Your task to perform on an android device: Empty the shopping cart on amazon. Search for "rayovac triple a" on amazon, select the first entry, add it to the cart, then select checkout. Image 0: 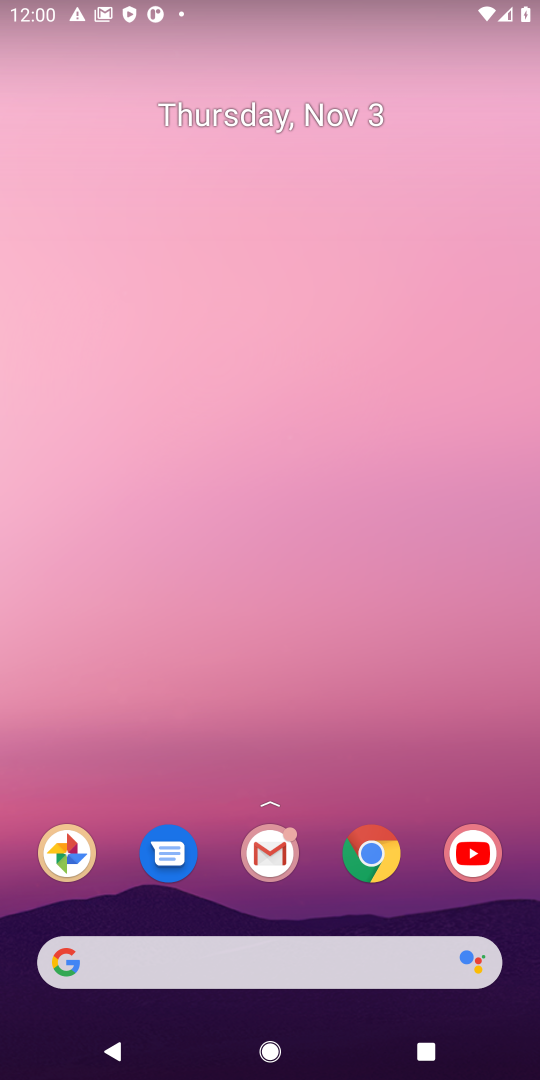
Step 0: click (376, 866)
Your task to perform on an android device: Empty the shopping cart on amazon. Search for "rayovac triple a" on amazon, select the first entry, add it to the cart, then select checkout. Image 1: 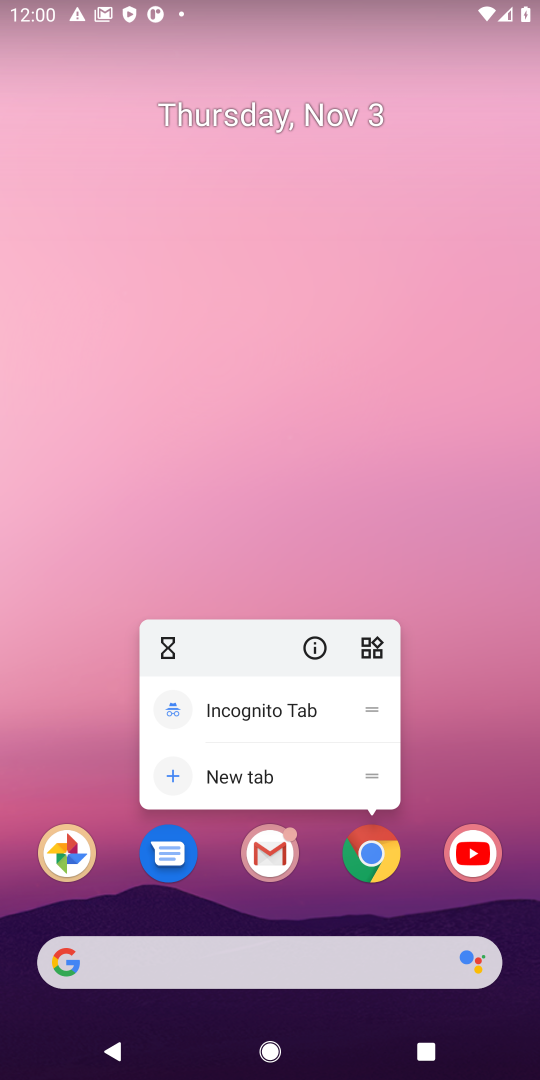
Step 1: click (364, 853)
Your task to perform on an android device: Empty the shopping cart on amazon. Search for "rayovac triple a" on amazon, select the first entry, add it to the cart, then select checkout. Image 2: 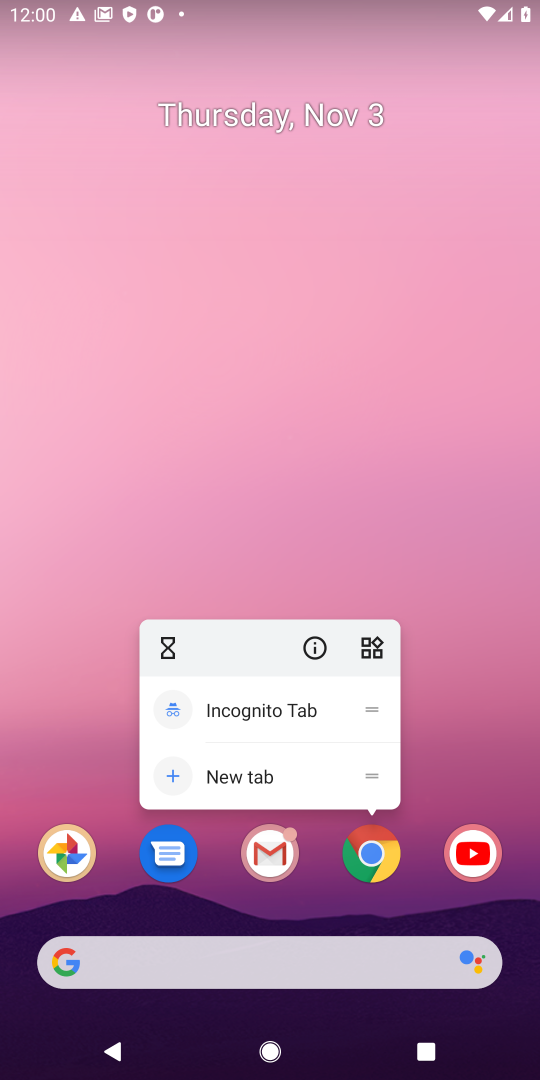
Step 2: click (372, 855)
Your task to perform on an android device: Empty the shopping cart on amazon. Search for "rayovac triple a" on amazon, select the first entry, add it to the cart, then select checkout. Image 3: 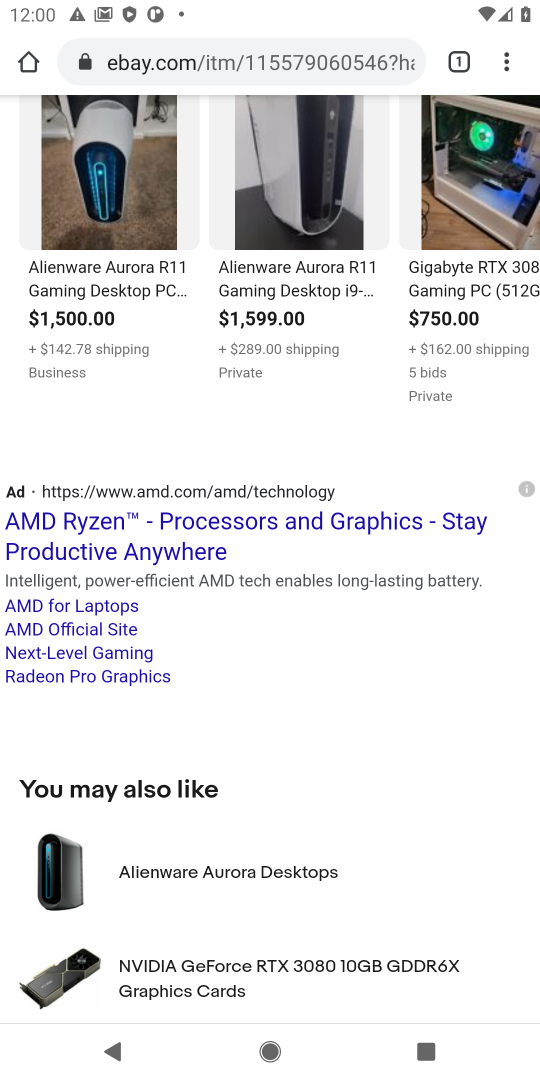
Step 3: click (304, 61)
Your task to perform on an android device: Empty the shopping cart on amazon. Search for "rayovac triple a" on amazon, select the first entry, add it to the cart, then select checkout. Image 4: 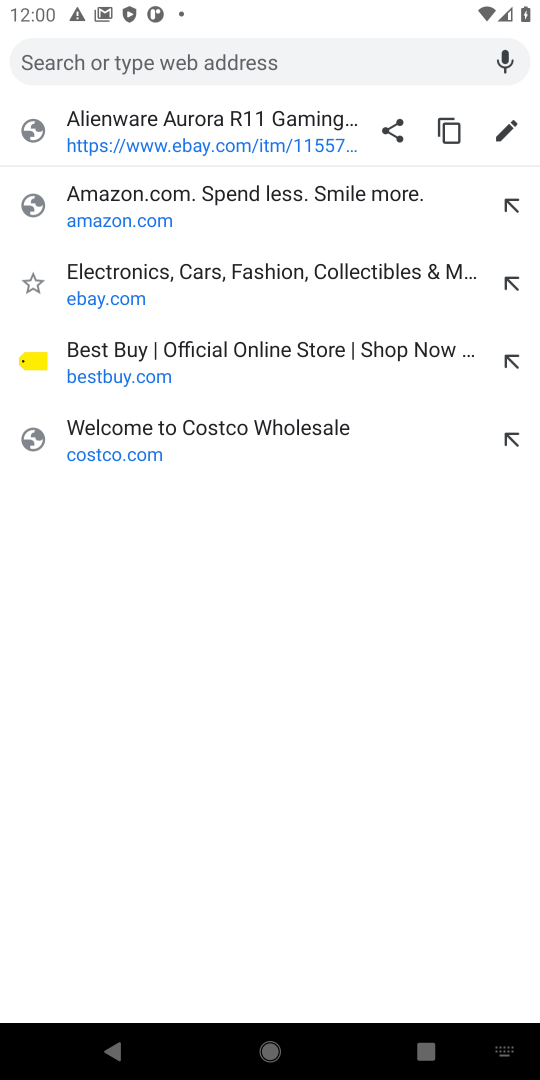
Step 4: click (134, 216)
Your task to perform on an android device: Empty the shopping cart on amazon. Search for "rayovac triple a" on amazon, select the first entry, add it to the cart, then select checkout. Image 5: 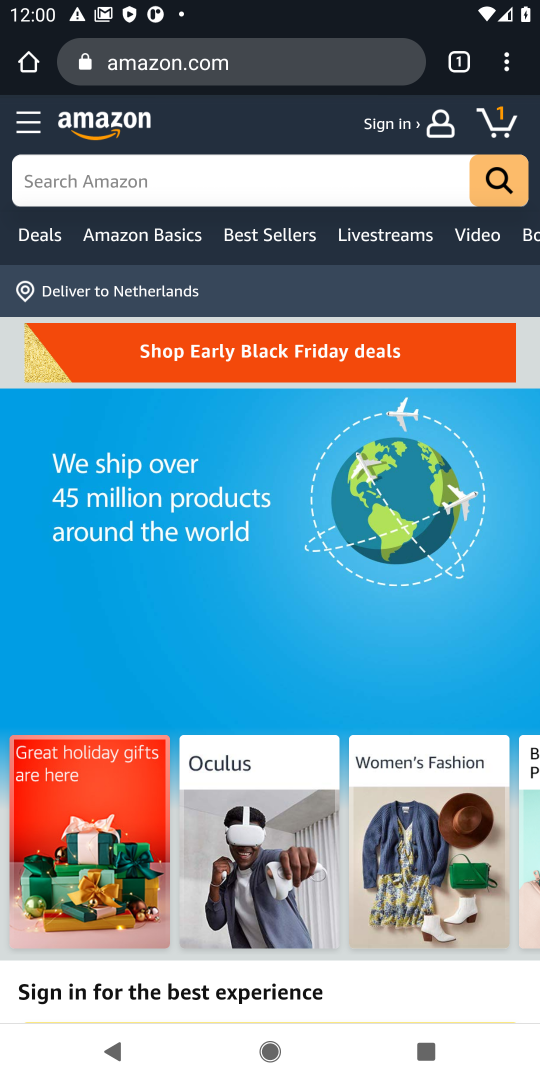
Step 5: click (42, 165)
Your task to perform on an android device: Empty the shopping cart on amazon. Search for "rayovac triple a" on amazon, select the first entry, add it to the cart, then select checkout. Image 6: 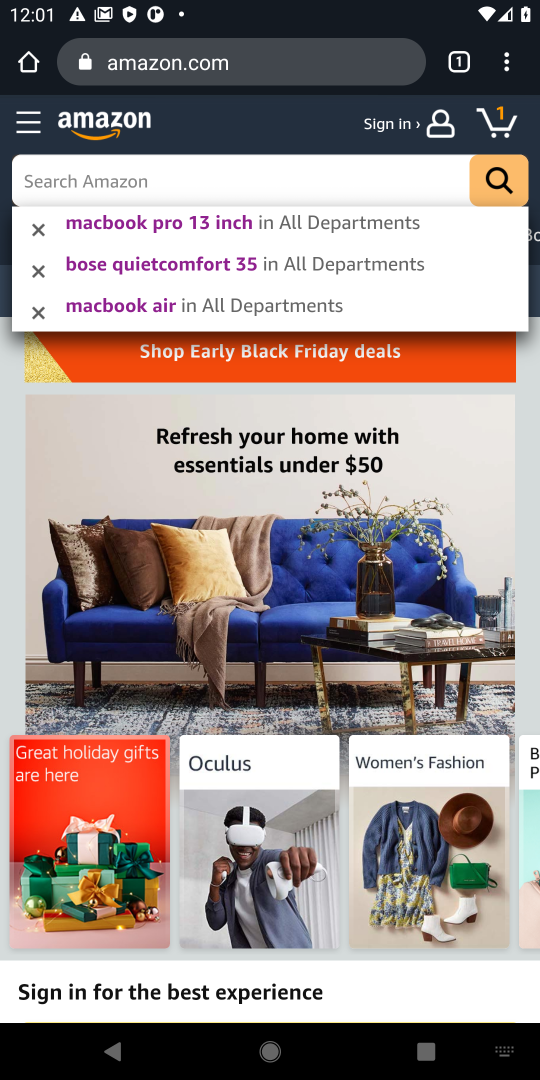
Step 6: type "rayovac triple a"
Your task to perform on an android device: Empty the shopping cart on amazon. Search for "rayovac triple a" on amazon, select the first entry, add it to the cart, then select checkout. Image 7: 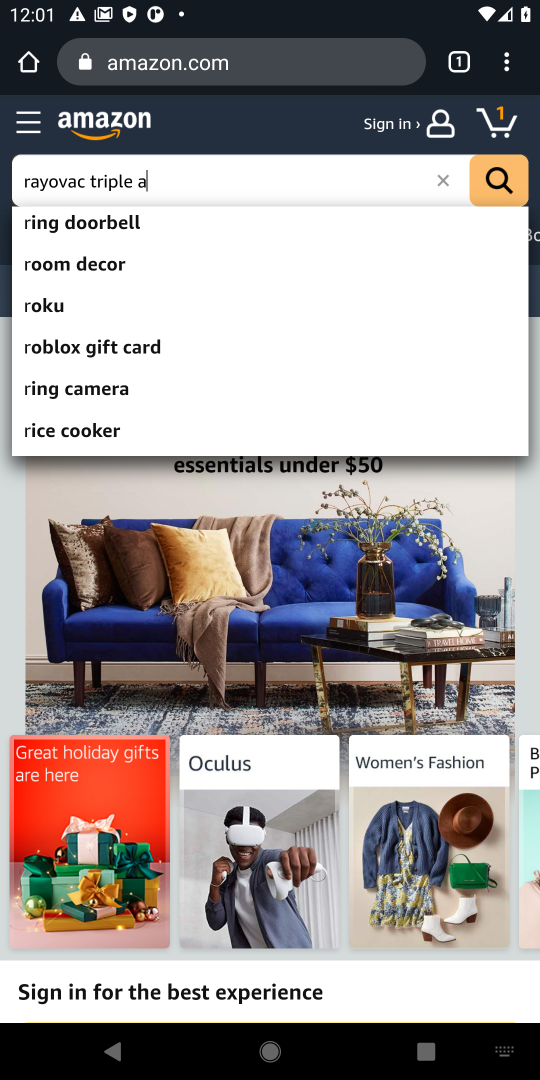
Step 7: press enter
Your task to perform on an android device: Empty the shopping cart on amazon. Search for "rayovac triple a" on amazon, select the first entry, add it to the cart, then select checkout. Image 8: 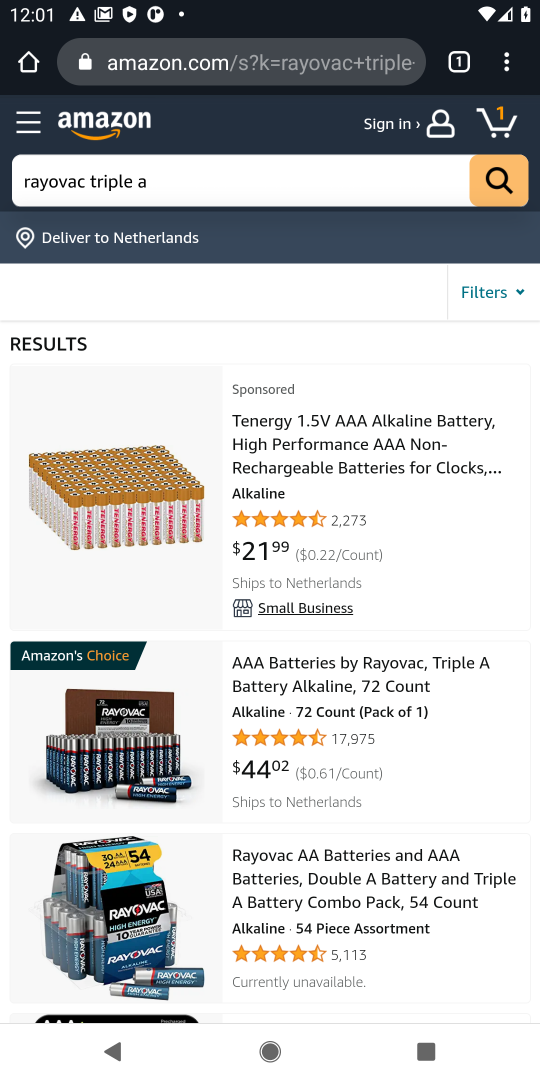
Step 8: task complete